Your task to perform on an android device: Go to Amazon Image 0: 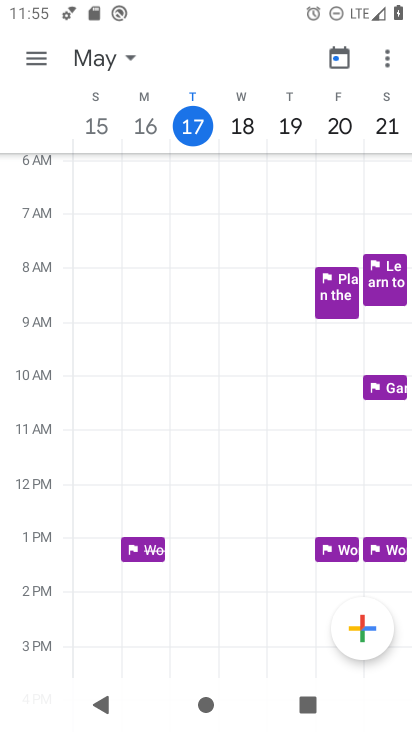
Step 0: press home button
Your task to perform on an android device: Go to Amazon Image 1: 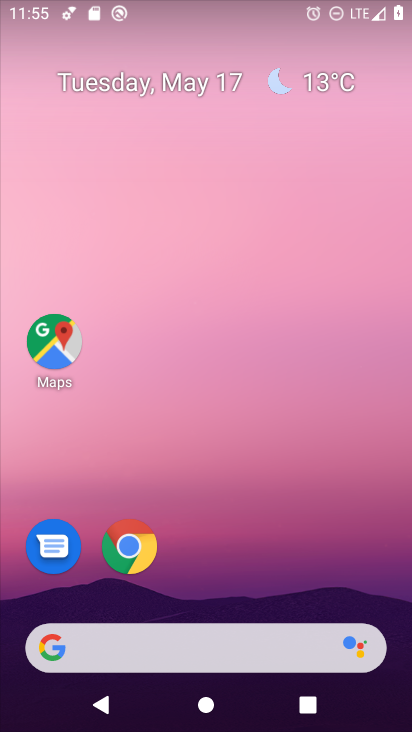
Step 1: click (129, 541)
Your task to perform on an android device: Go to Amazon Image 2: 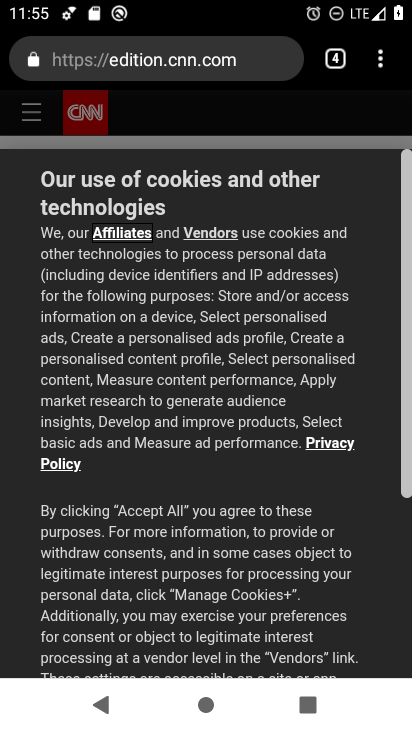
Step 2: click (115, 63)
Your task to perform on an android device: Go to Amazon Image 3: 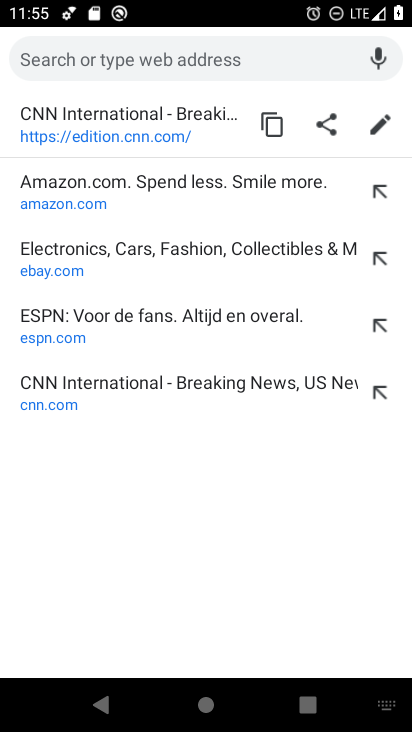
Step 3: click (84, 201)
Your task to perform on an android device: Go to Amazon Image 4: 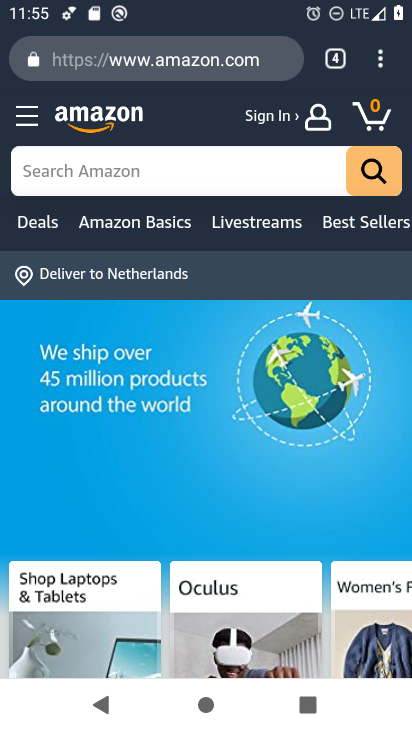
Step 4: task complete